Your task to perform on an android device: turn on sleep mode Image 0: 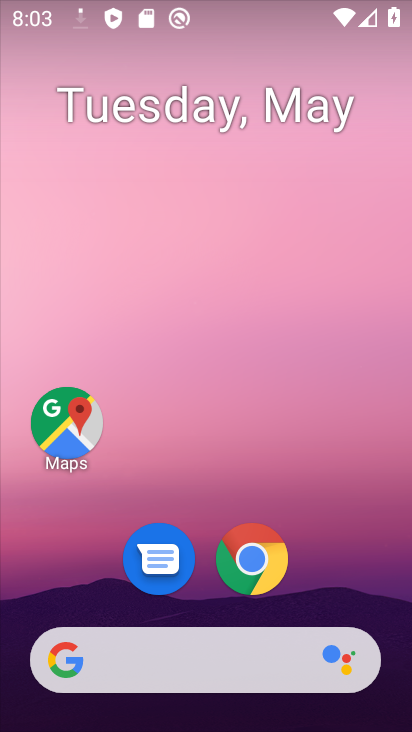
Step 0: drag from (226, 560) to (363, 40)
Your task to perform on an android device: turn on sleep mode Image 1: 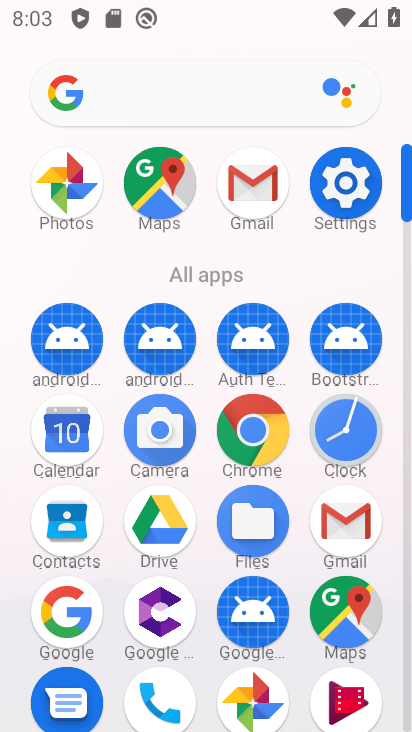
Step 1: click (344, 182)
Your task to perform on an android device: turn on sleep mode Image 2: 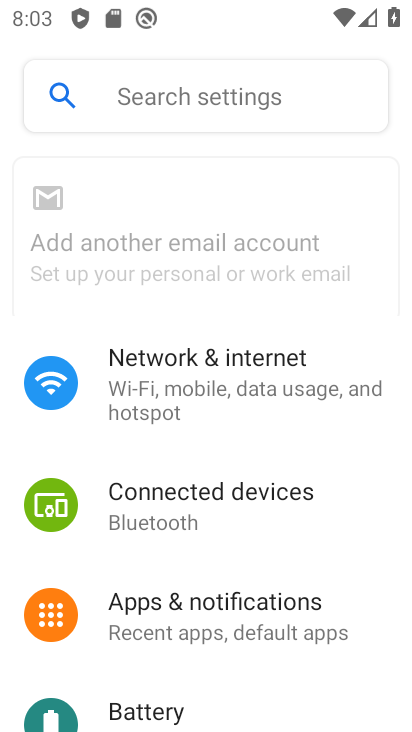
Step 2: click (165, 101)
Your task to perform on an android device: turn on sleep mode Image 3: 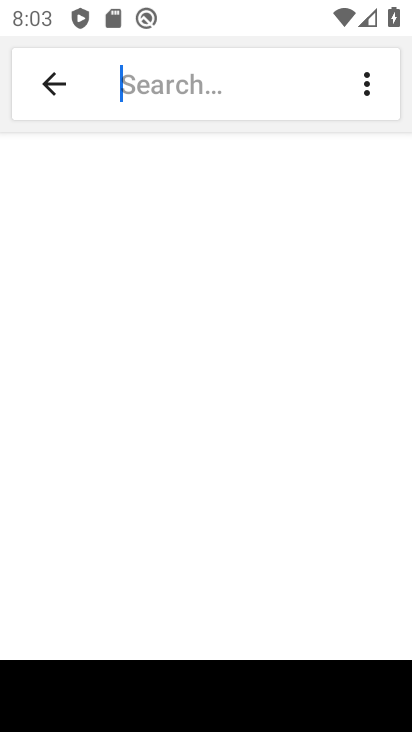
Step 3: type "sleep mode"
Your task to perform on an android device: turn on sleep mode Image 4: 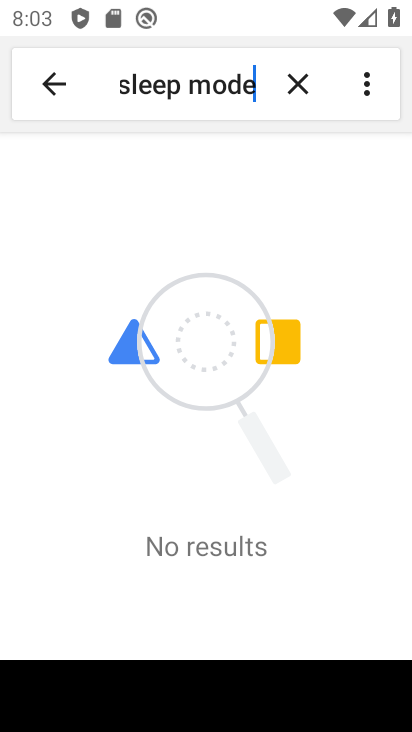
Step 4: task complete